Your task to perform on an android device: Open Google Image 0: 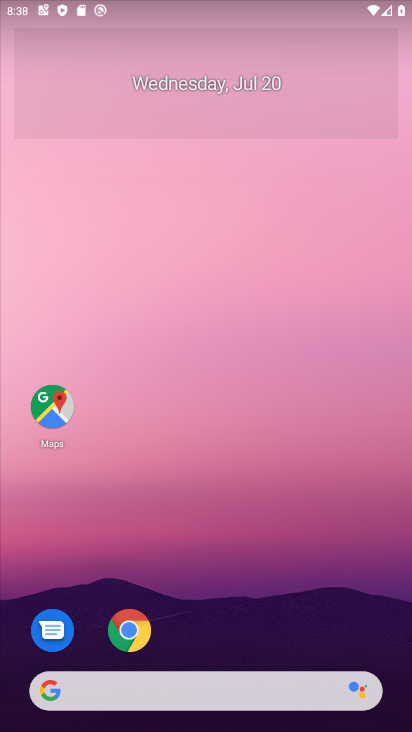
Step 0: drag from (388, 691) to (287, 30)
Your task to perform on an android device: Open Google Image 1: 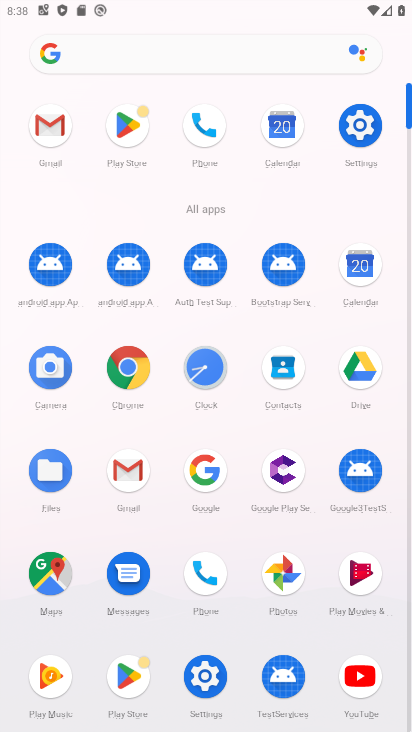
Step 1: click (205, 474)
Your task to perform on an android device: Open Google Image 2: 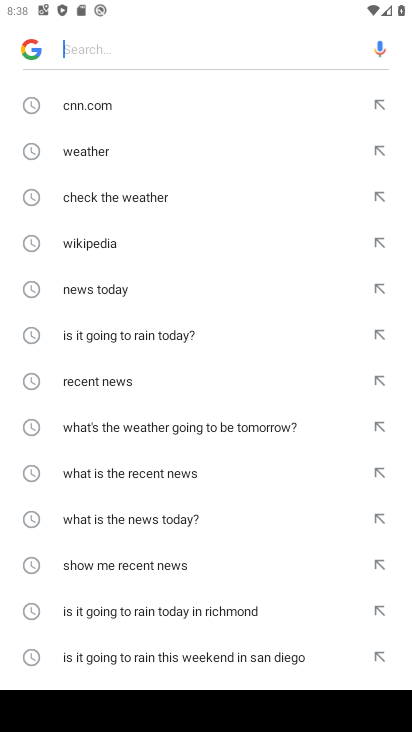
Step 2: task complete